Your task to perform on an android device: open a bookmark in the chrome app Image 0: 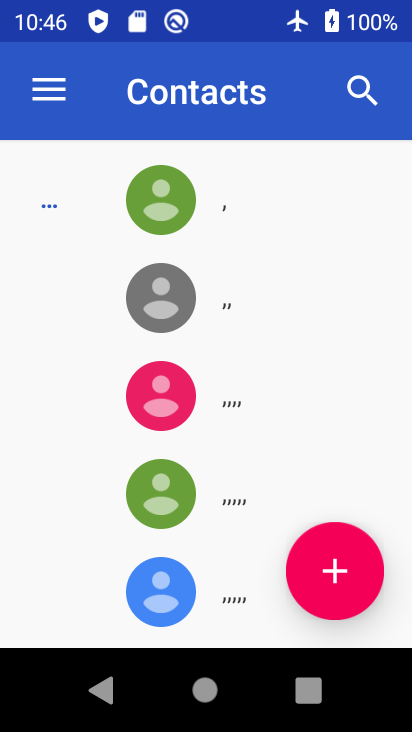
Step 0: press home button
Your task to perform on an android device: open a bookmark in the chrome app Image 1: 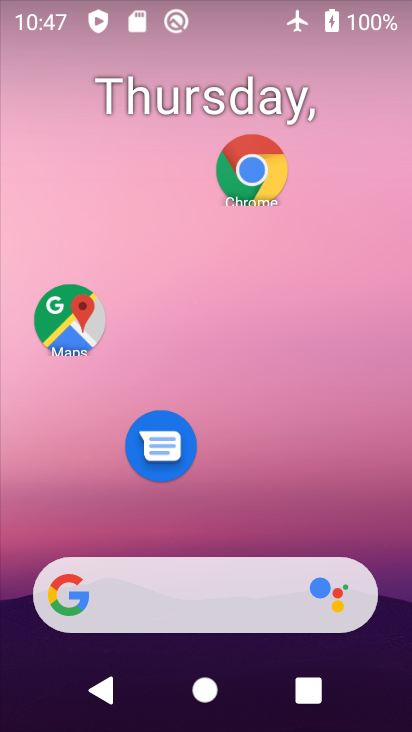
Step 1: click (255, 172)
Your task to perform on an android device: open a bookmark in the chrome app Image 2: 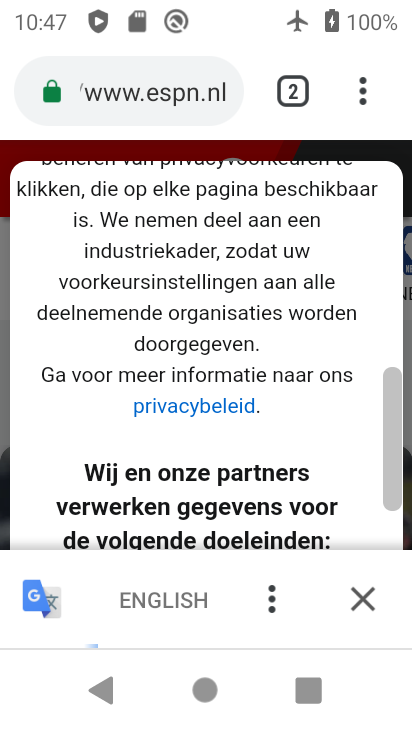
Step 2: click (360, 92)
Your task to perform on an android device: open a bookmark in the chrome app Image 3: 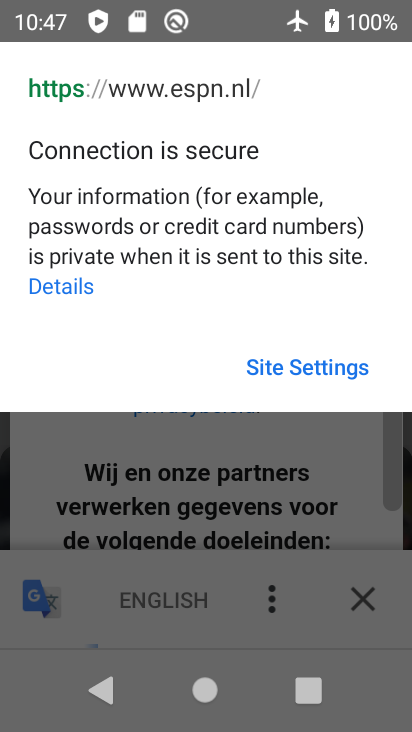
Step 3: click (397, 521)
Your task to perform on an android device: open a bookmark in the chrome app Image 4: 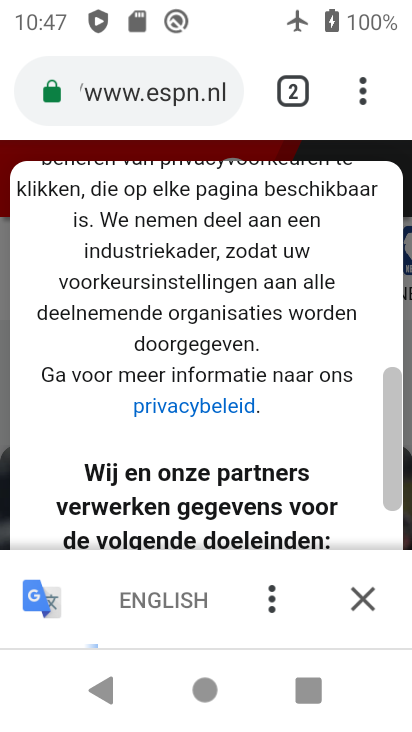
Step 4: click (365, 606)
Your task to perform on an android device: open a bookmark in the chrome app Image 5: 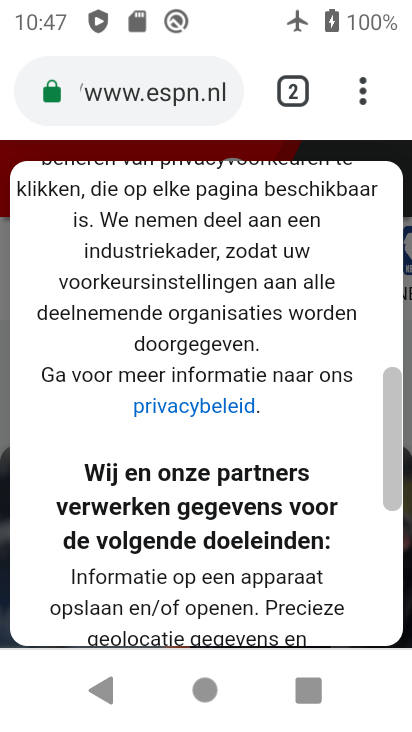
Step 5: click (286, 94)
Your task to perform on an android device: open a bookmark in the chrome app Image 6: 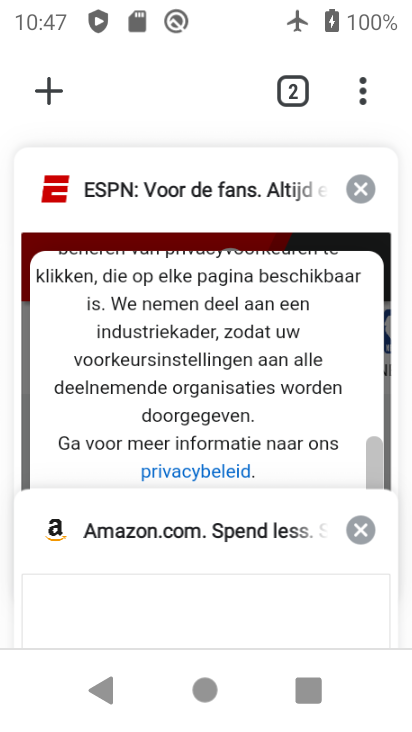
Step 6: click (360, 184)
Your task to perform on an android device: open a bookmark in the chrome app Image 7: 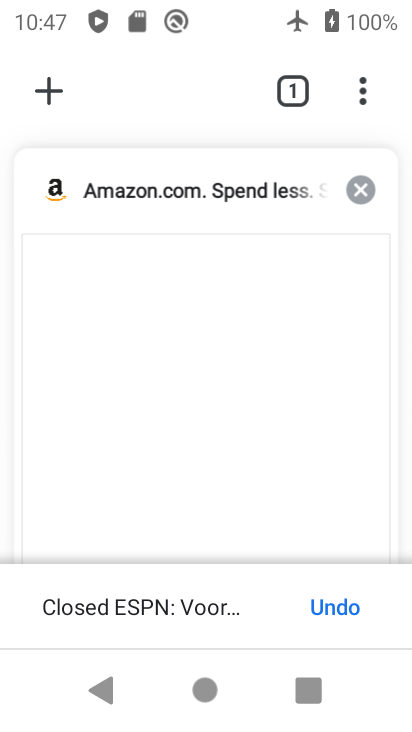
Step 7: click (357, 191)
Your task to perform on an android device: open a bookmark in the chrome app Image 8: 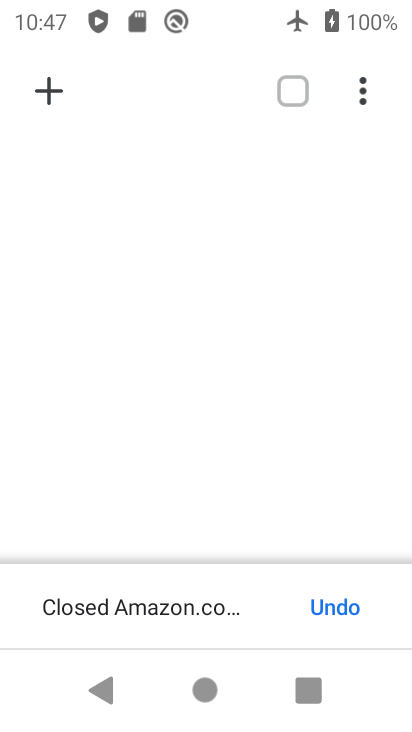
Step 8: click (39, 89)
Your task to perform on an android device: open a bookmark in the chrome app Image 9: 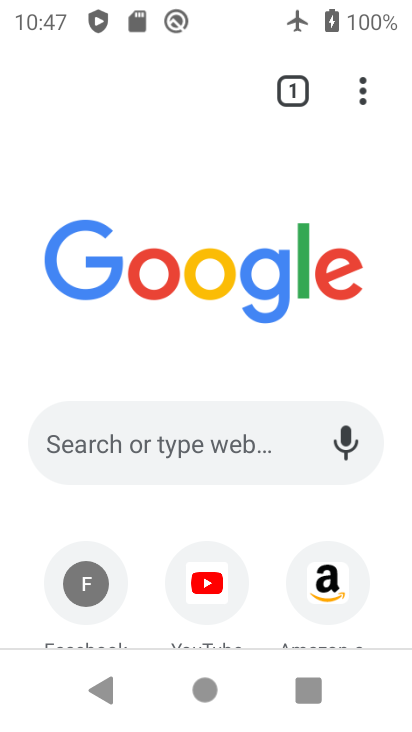
Step 9: click (363, 95)
Your task to perform on an android device: open a bookmark in the chrome app Image 10: 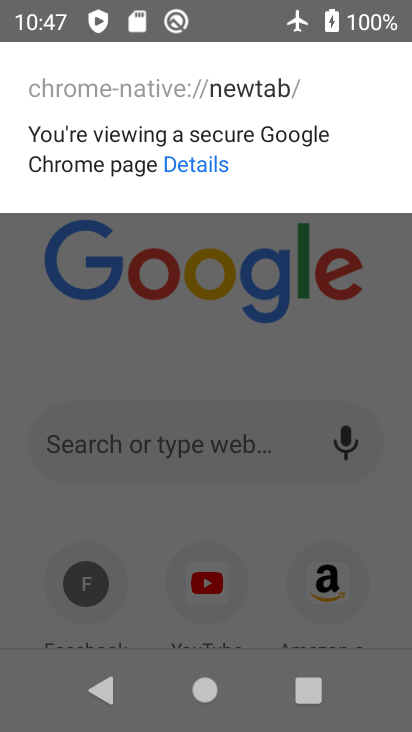
Step 10: click (312, 343)
Your task to perform on an android device: open a bookmark in the chrome app Image 11: 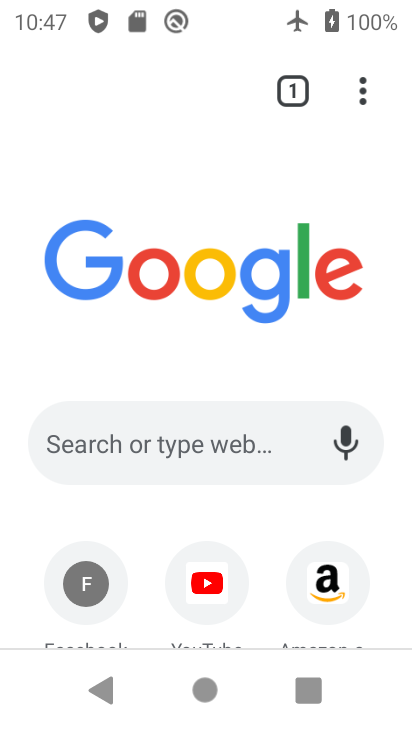
Step 11: click (365, 94)
Your task to perform on an android device: open a bookmark in the chrome app Image 12: 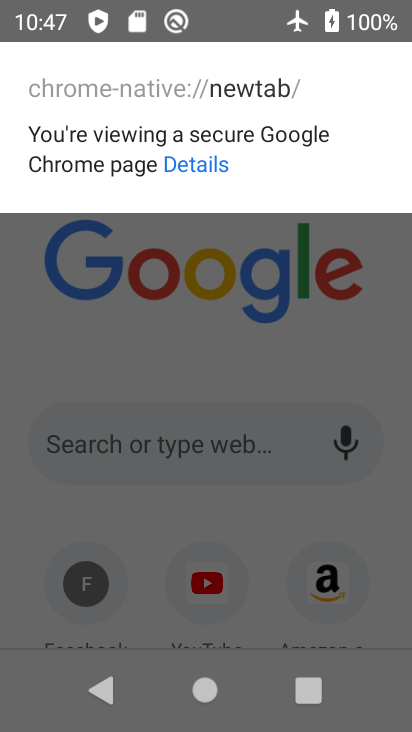
Step 12: click (403, 261)
Your task to perform on an android device: open a bookmark in the chrome app Image 13: 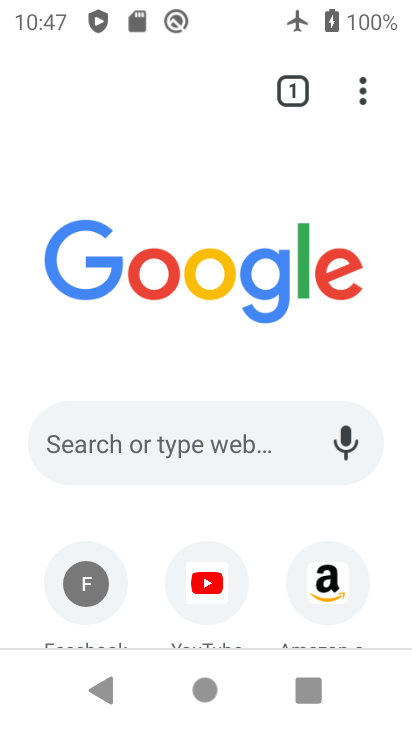
Step 13: click (357, 84)
Your task to perform on an android device: open a bookmark in the chrome app Image 14: 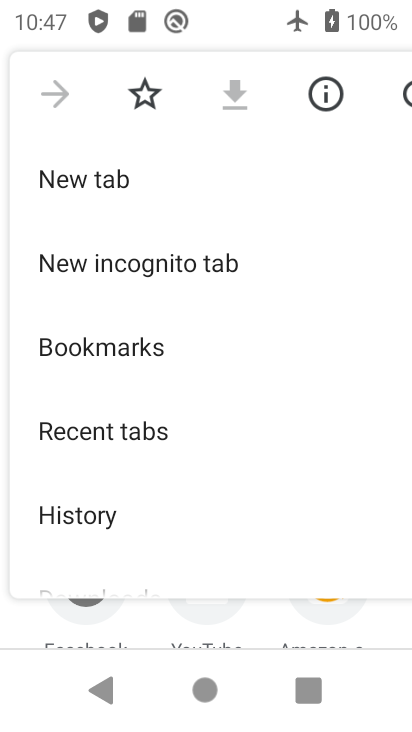
Step 14: drag from (196, 507) to (191, 196)
Your task to perform on an android device: open a bookmark in the chrome app Image 15: 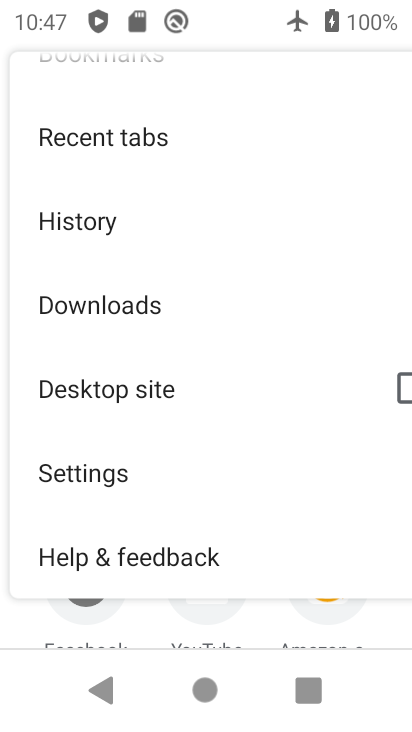
Step 15: click (92, 470)
Your task to perform on an android device: open a bookmark in the chrome app Image 16: 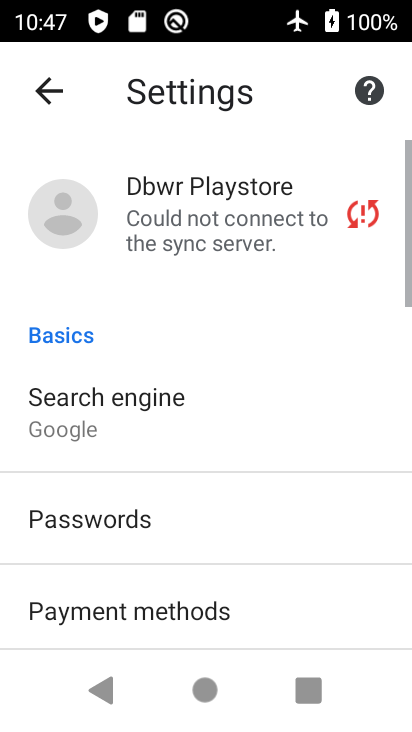
Step 16: click (34, 90)
Your task to perform on an android device: open a bookmark in the chrome app Image 17: 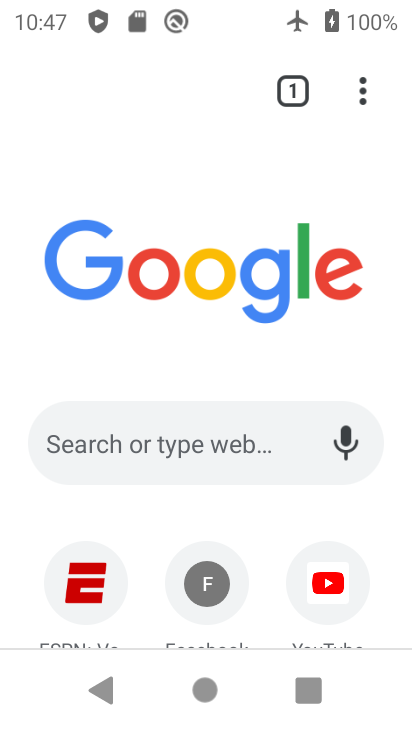
Step 17: click (364, 87)
Your task to perform on an android device: open a bookmark in the chrome app Image 18: 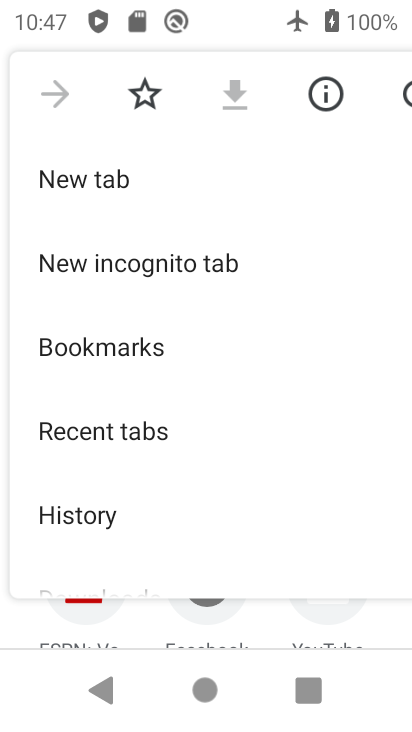
Step 18: click (73, 338)
Your task to perform on an android device: open a bookmark in the chrome app Image 19: 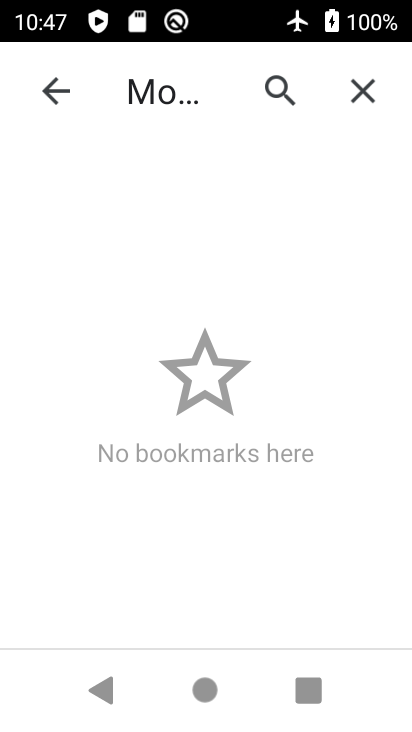
Step 19: task complete